Your task to perform on an android device: Go to ESPN.com Image 0: 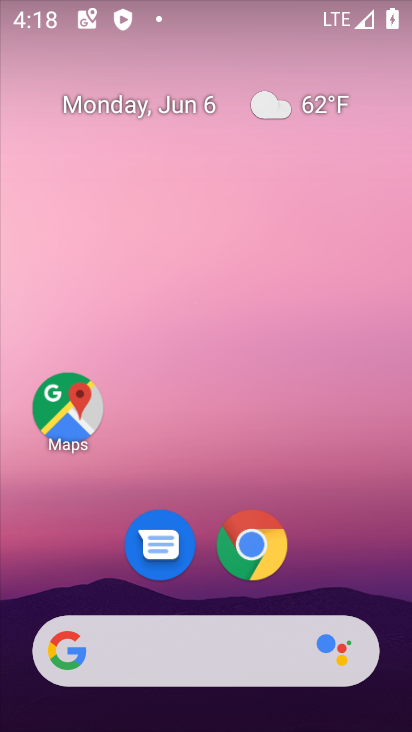
Step 0: click (250, 558)
Your task to perform on an android device: Go to ESPN.com Image 1: 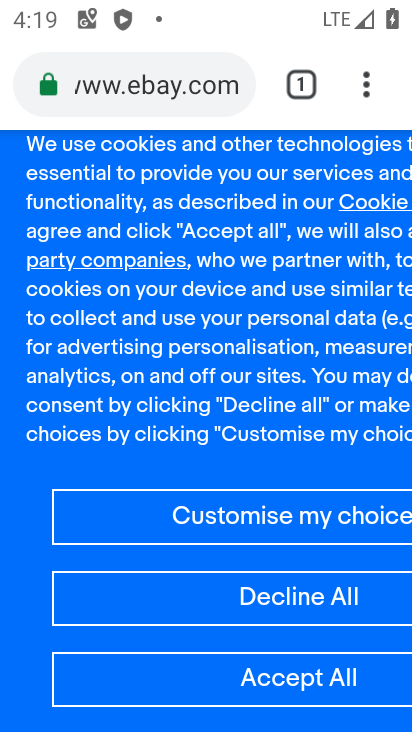
Step 1: click (364, 91)
Your task to perform on an android device: Go to ESPN.com Image 2: 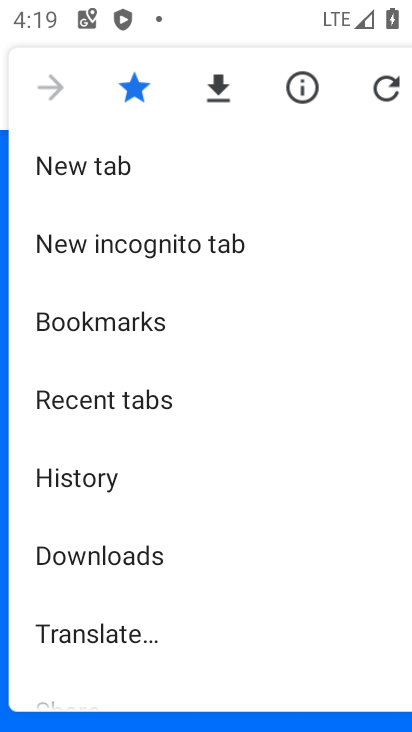
Step 2: click (107, 165)
Your task to perform on an android device: Go to ESPN.com Image 3: 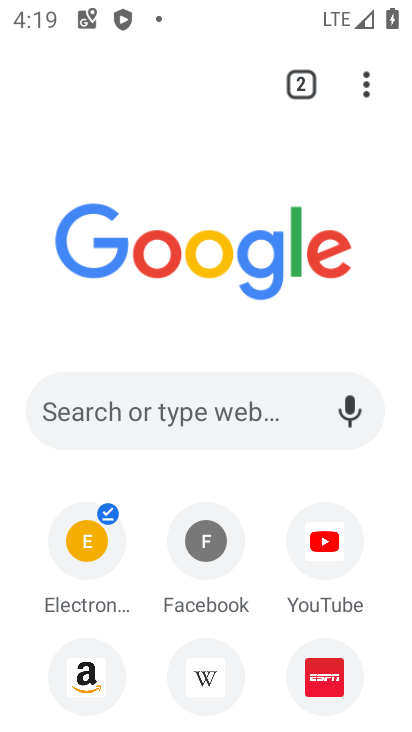
Step 3: click (326, 680)
Your task to perform on an android device: Go to ESPN.com Image 4: 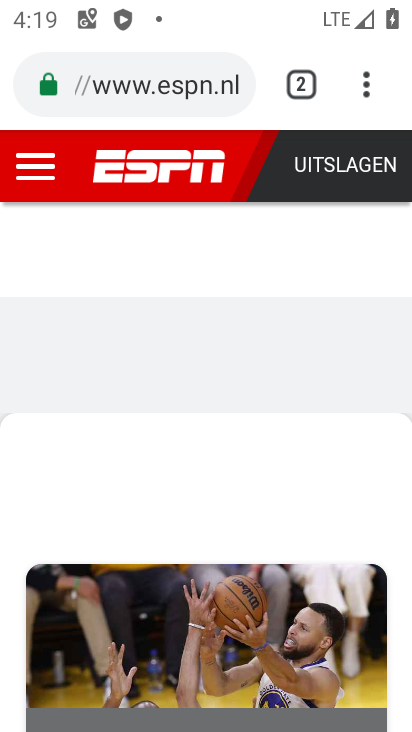
Step 4: task complete